Your task to perform on an android device: Open Reddit.com Image 0: 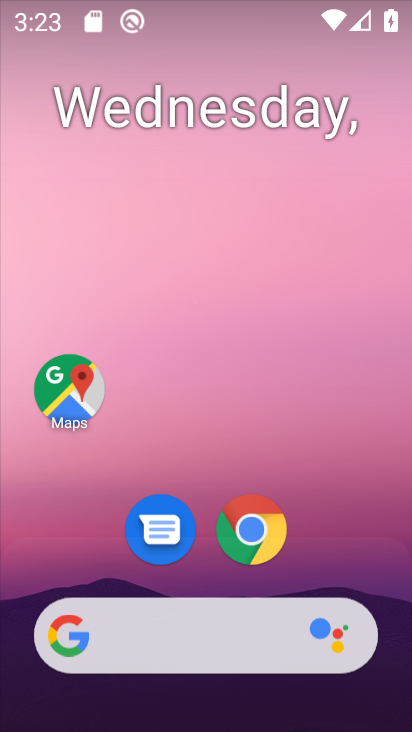
Step 0: click (256, 521)
Your task to perform on an android device: Open Reddit.com Image 1: 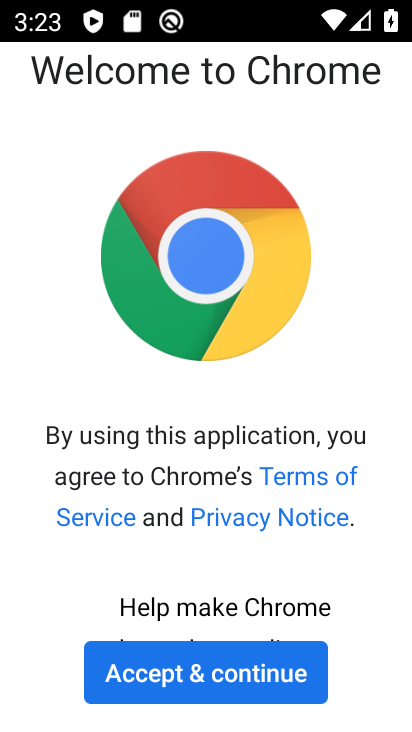
Step 1: click (243, 667)
Your task to perform on an android device: Open Reddit.com Image 2: 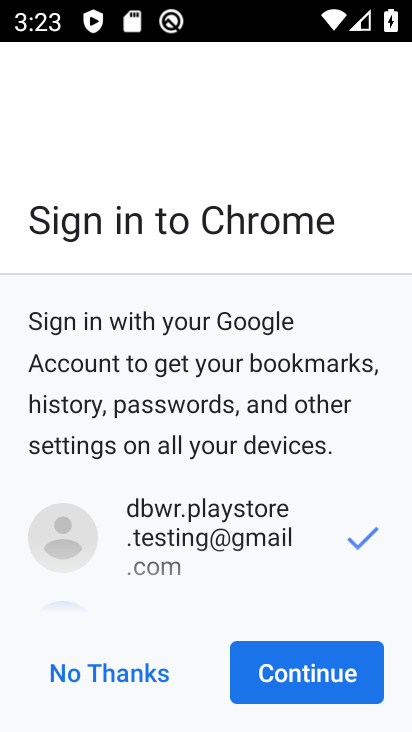
Step 2: click (309, 669)
Your task to perform on an android device: Open Reddit.com Image 3: 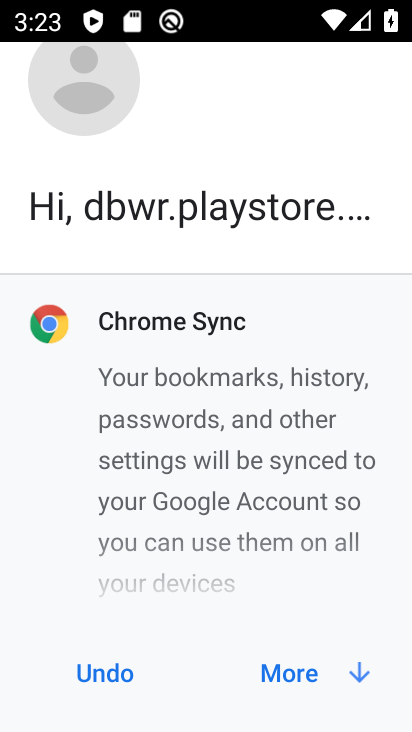
Step 3: click (330, 679)
Your task to perform on an android device: Open Reddit.com Image 4: 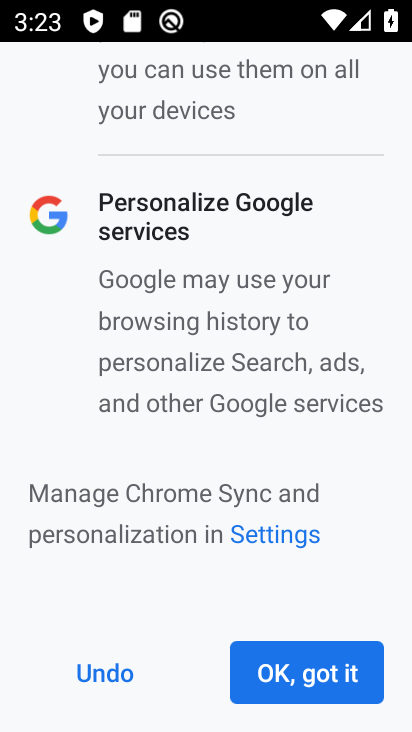
Step 4: click (327, 667)
Your task to perform on an android device: Open Reddit.com Image 5: 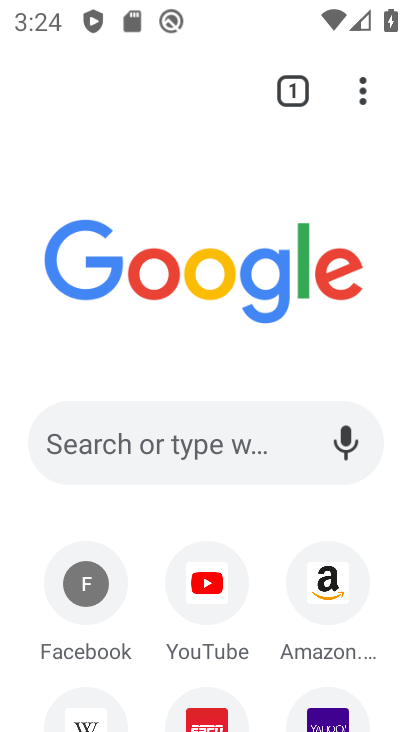
Step 5: click (169, 444)
Your task to perform on an android device: Open Reddit.com Image 6: 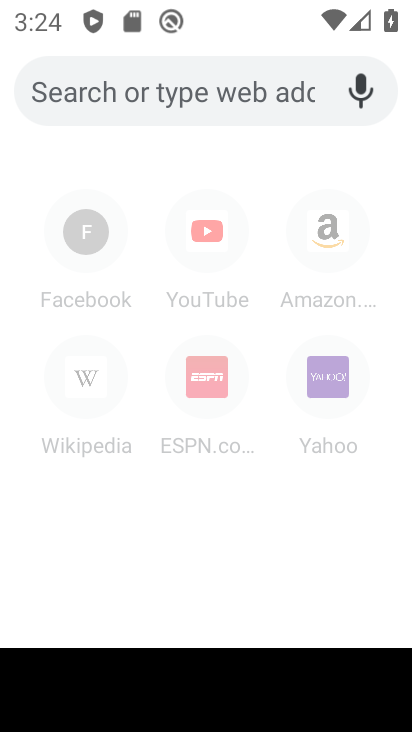
Step 6: type "reddit.com"
Your task to perform on an android device: Open Reddit.com Image 7: 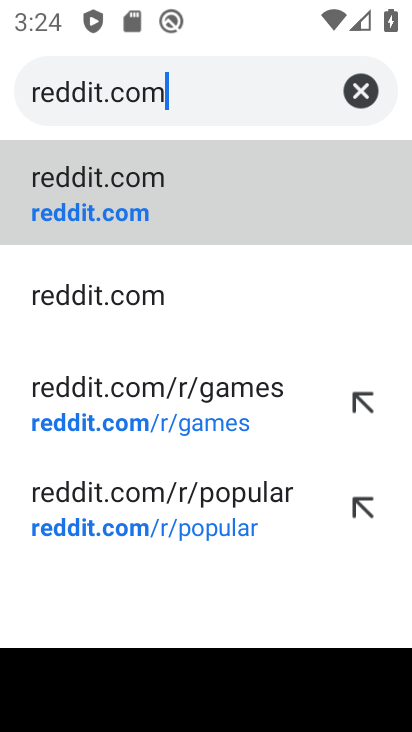
Step 7: click (114, 173)
Your task to perform on an android device: Open Reddit.com Image 8: 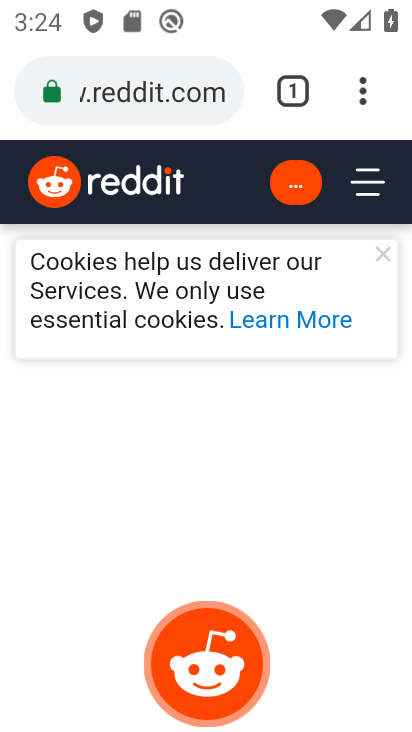
Step 8: task complete